Your task to perform on an android device: turn on wifi Image 0: 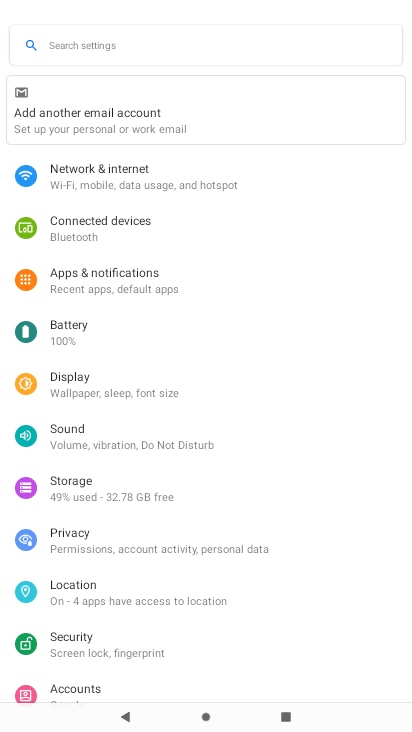
Step 0: drag from (211, 6) to (259, 251)
Your task to perform on an android device: turn on wifi Image 1: 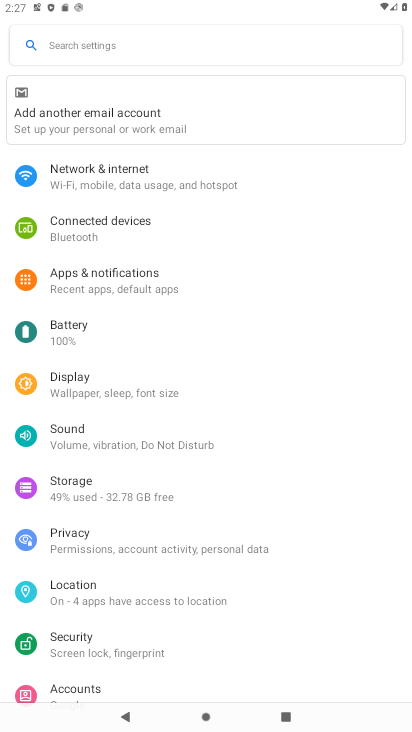
Step 1: task complete